Your task to perform on an android device: Set the phone to "Do not disturb". Image 0: 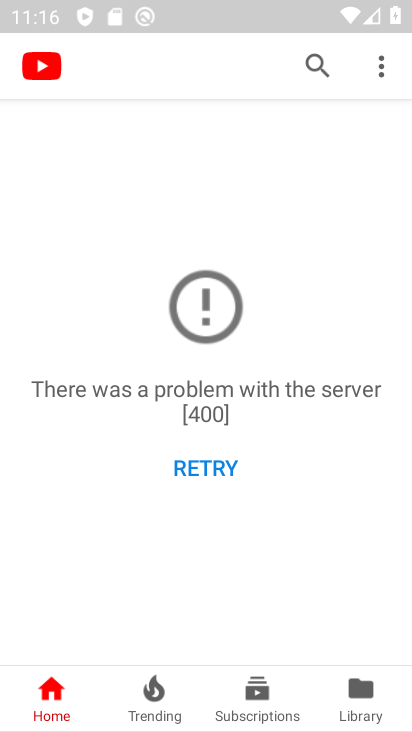
Step 0: press home button
Your task to perform on an android device: Set the phone to "Do not disturb". Image 1: 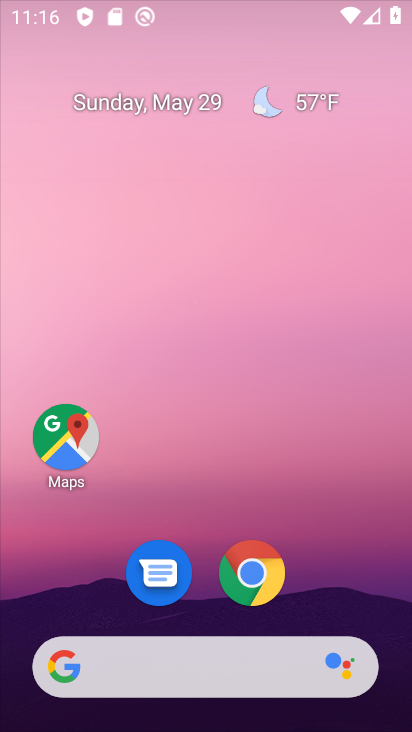
Step 1: drag from (133, 713) to (123, 104)
Your task to perform on an android device: Set the phone to "Do not disturb". Image 2: 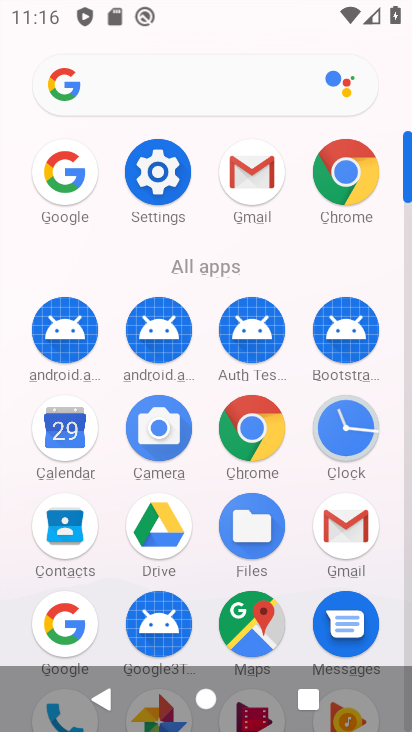
Step 2: click (167, 178)
Your task to perform on an android device: Set the phone to "Do not disturb". Image 3: 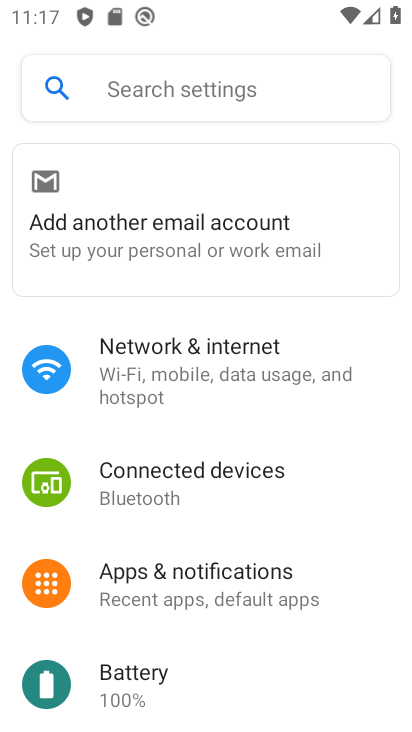
Step 3: drag from (266, 626) to (222, 139)
Your task to perform on an android device: Set the phone to "Do not disturb". Image 4: 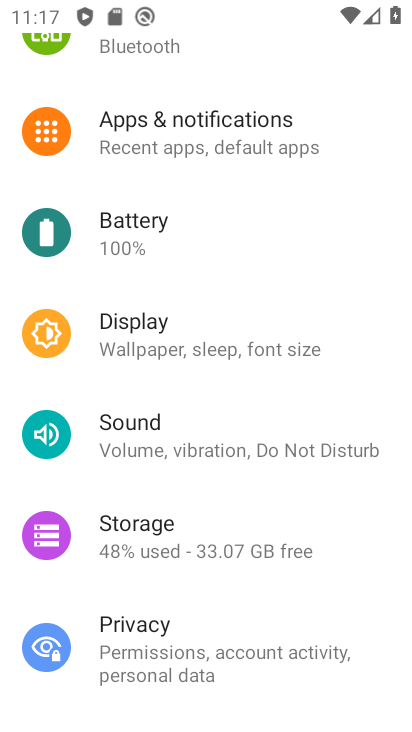
Step 4: click (218, 440)
Your task to perform on an android device: Set the phone to "Do not disturb". Image 5: 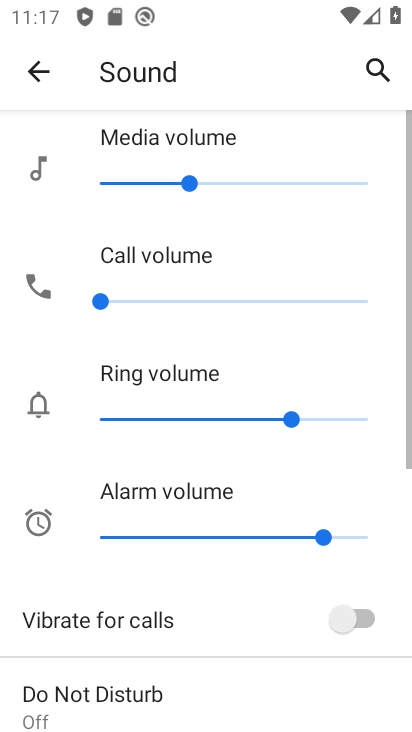
Step 5: drag from (207, 696) to (170, 211)
Your task to perform on an android device: Set the phone to "Do not disturb". Image 6: 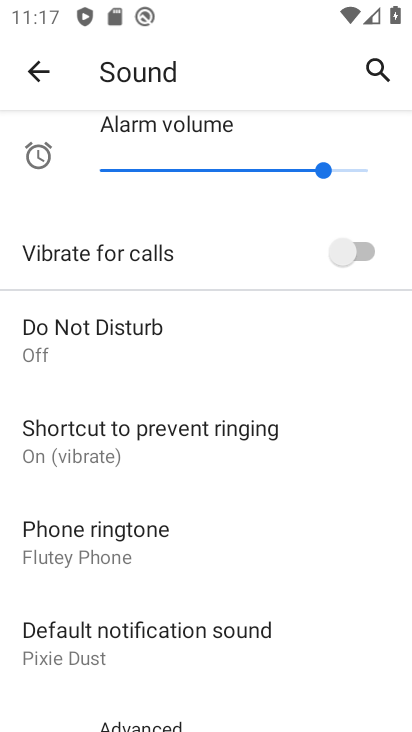
Step 6: click (108, 355)
Your task to perform on an android device: Set the phone to "Do not disturb". Image 7: 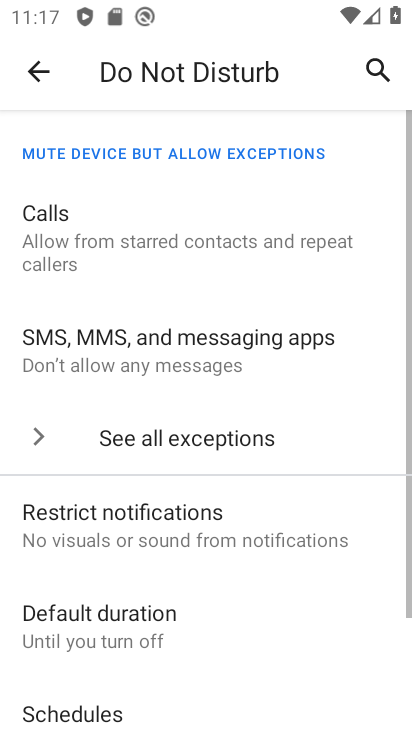
Step 7: drag from (280, 647) to (287, 25)
Your task to perform on an android device: Set the phone to "Do not disturb". Image 8: 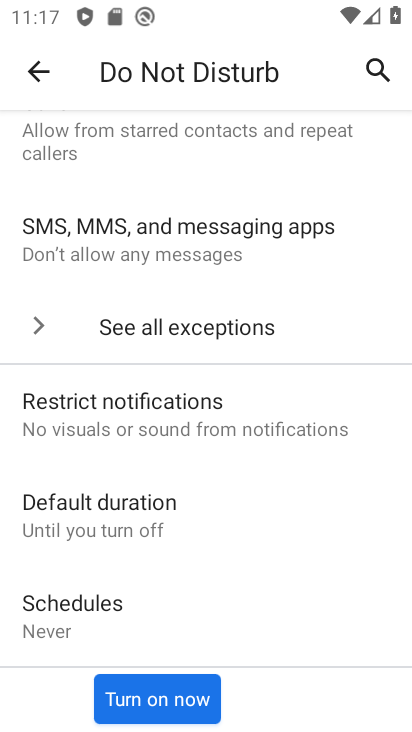
Step 8: click (193, 703)
Your task to perform on an android device: Set the phone to "Do not disturb". Image 9: 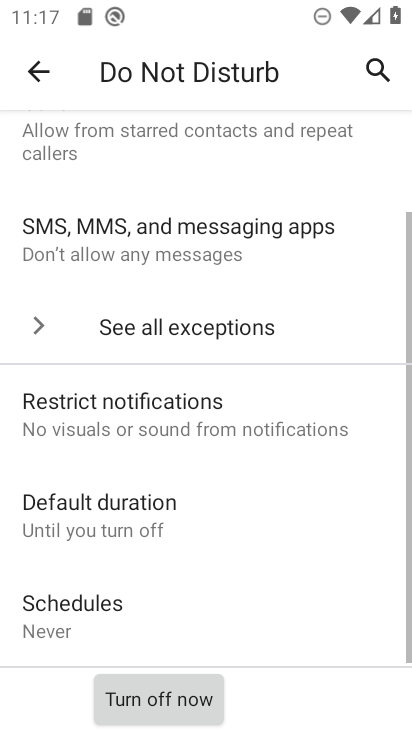
Step 9: task complete